Your task to perform on an android device: find snoozed emails in the gmail app Image 0: 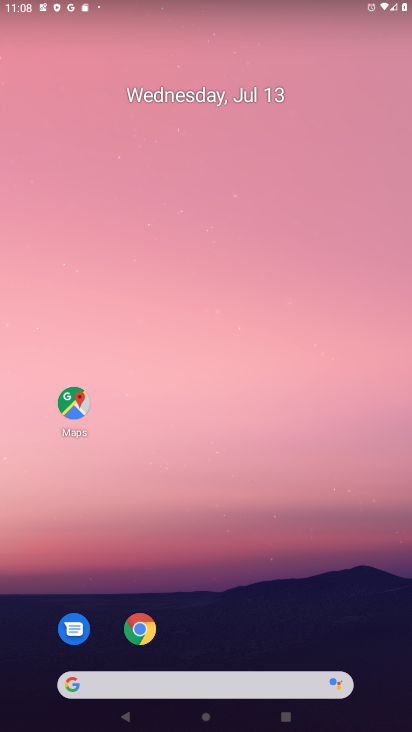
Step 0: drag from (317, 595) to (283, 195)
Your task to perform on an android device: find snoozed emails in the gmail app Image 1: 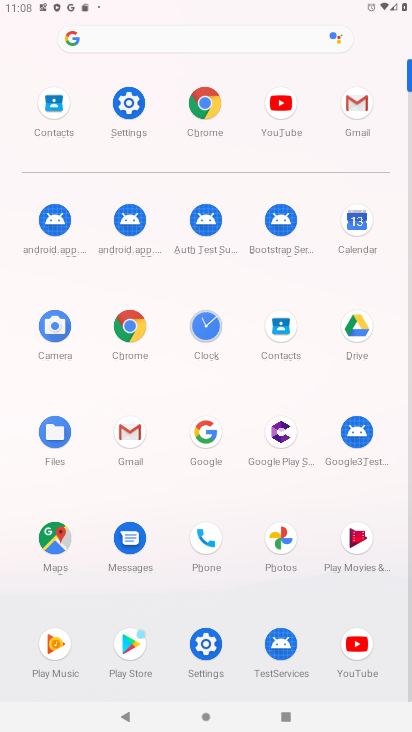
Step 1: click (343, 100)
Your task to perform on an android device: find snoozed emails in the gmail app Image 2: 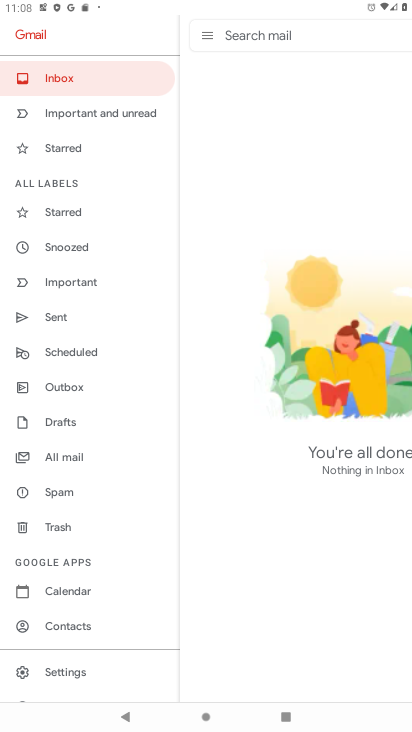
Step 2: click (77, 258)
Your task to perform on an android device: find snoozed emails in the gmail app Image 3: 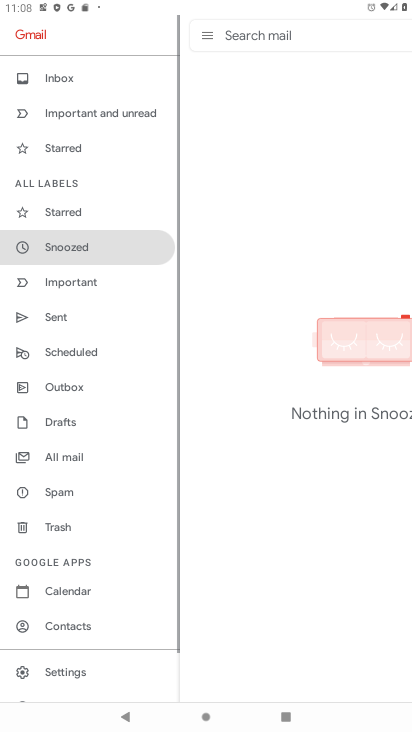
Step 3: task complete